Your task to perform on an android device: Open settings on Google Maps Image 0: 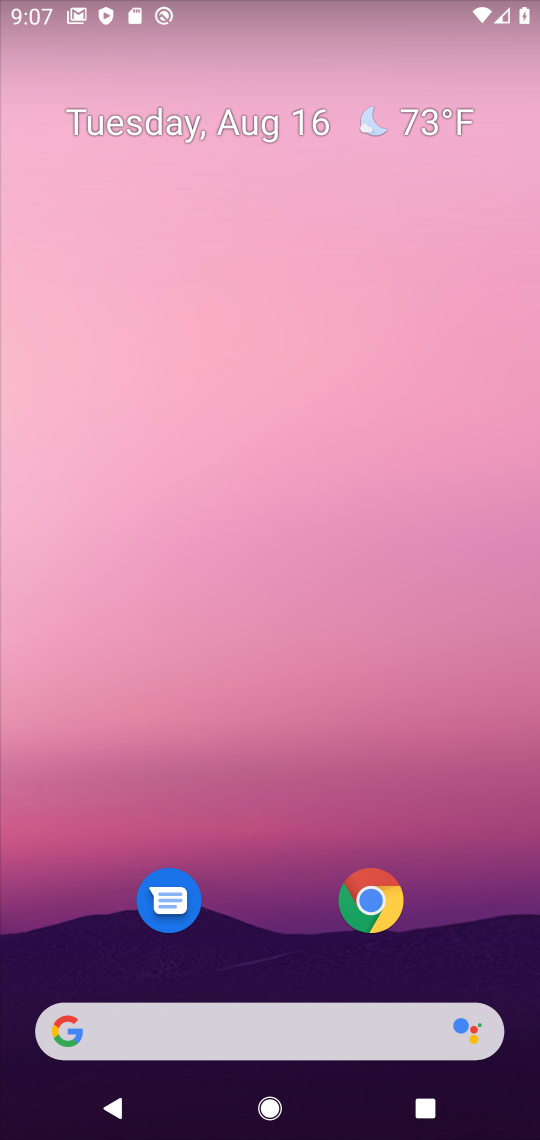
Step 0: drag from (240, 842) to (319, 423)
Your task to perform on an android device: Open settings on Google Maps Image 1: 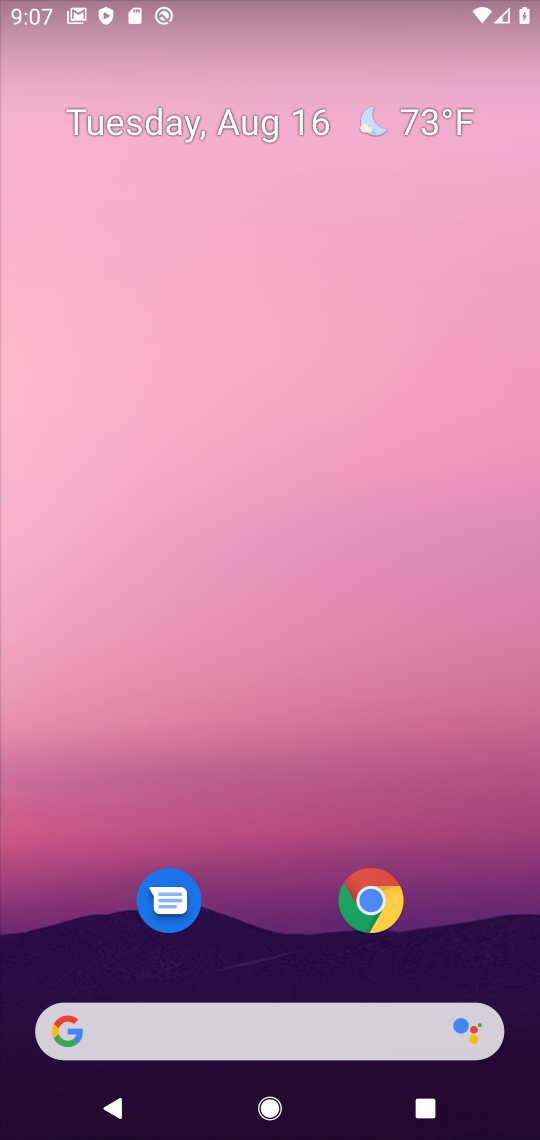
Step 1: drag from (441, 1046) to (477, 380)
Your task to perform on an android device: Open settings on Google Maps Image 2: 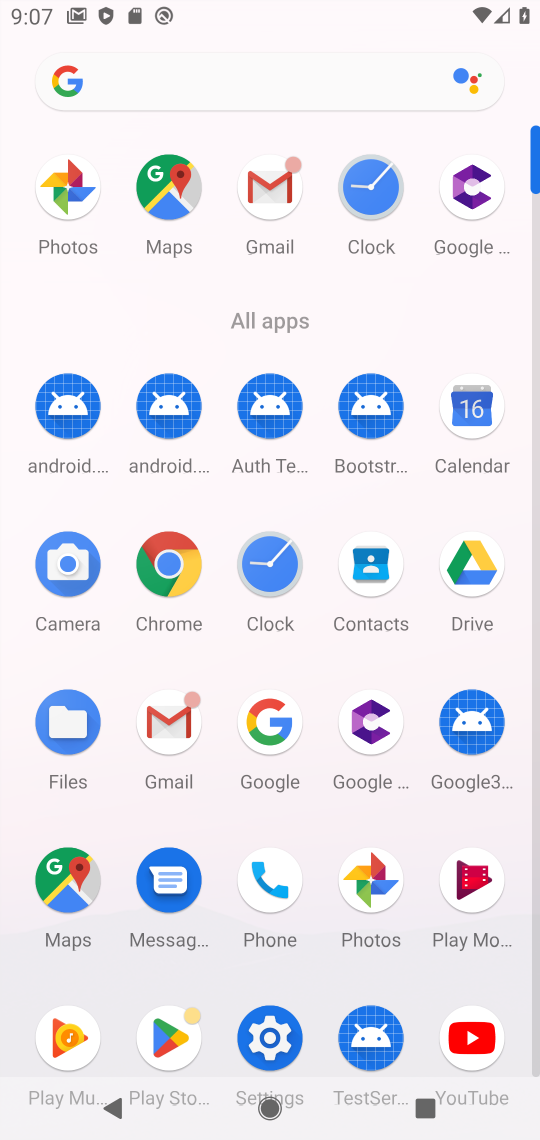
Step 2: click (53, 887)
Your task to perform on an android device: Open settings on Google Maps Image 3: 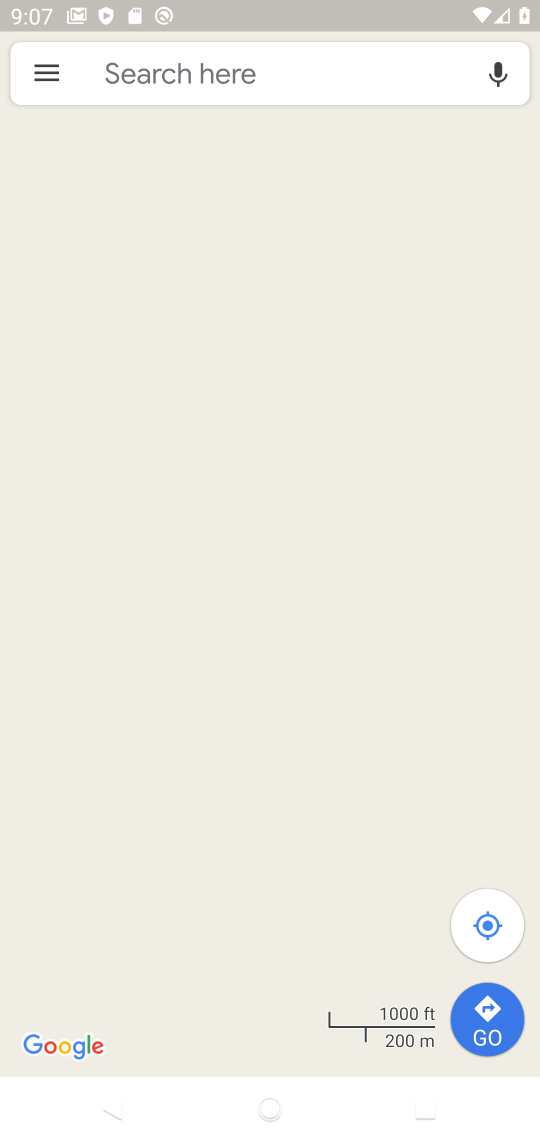
Step 3: click (57, 73)
Your task to perform on an android device: Open settings on Google Maps Image 4: 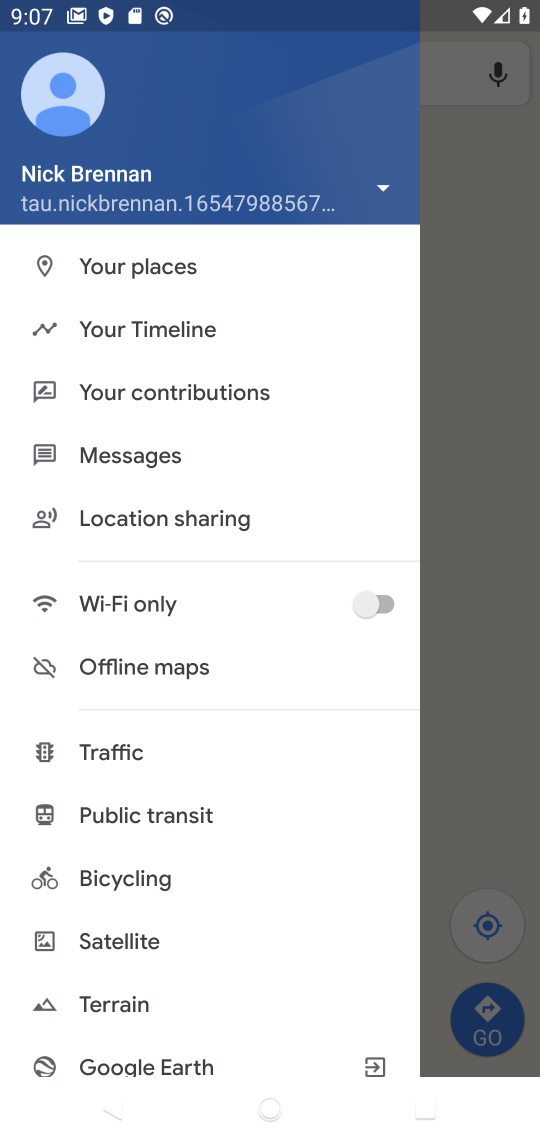
Step 4: drag from (123, 959) to (164, 453)
Your task to perform on an android device: Open settings on Google Maps Image 5: 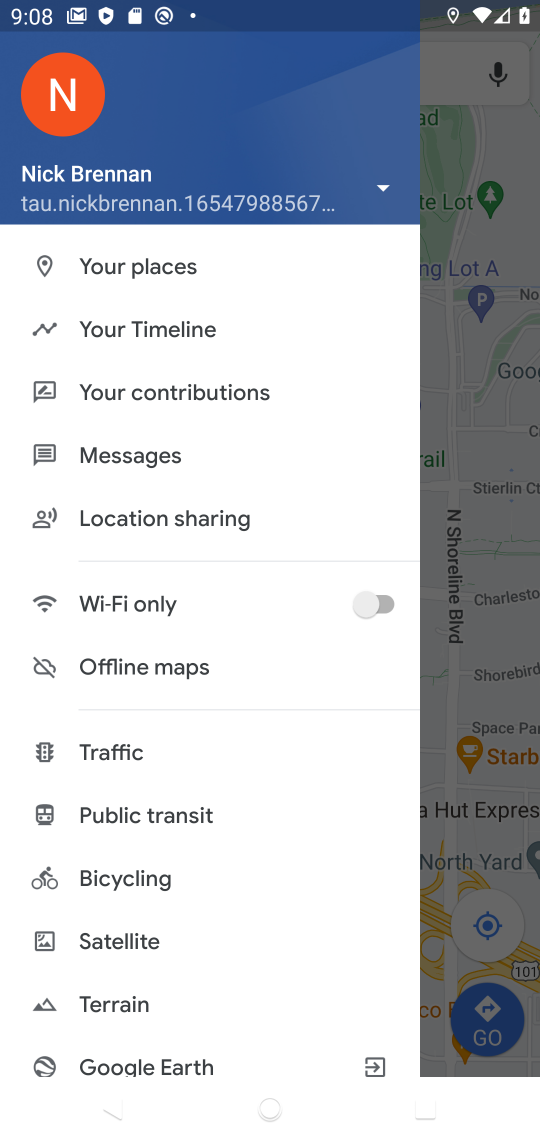
Step 5: drag from (194, 932) to (186, 551)
Your task to perform on an android device: Open settings on Google Maps Image 6: 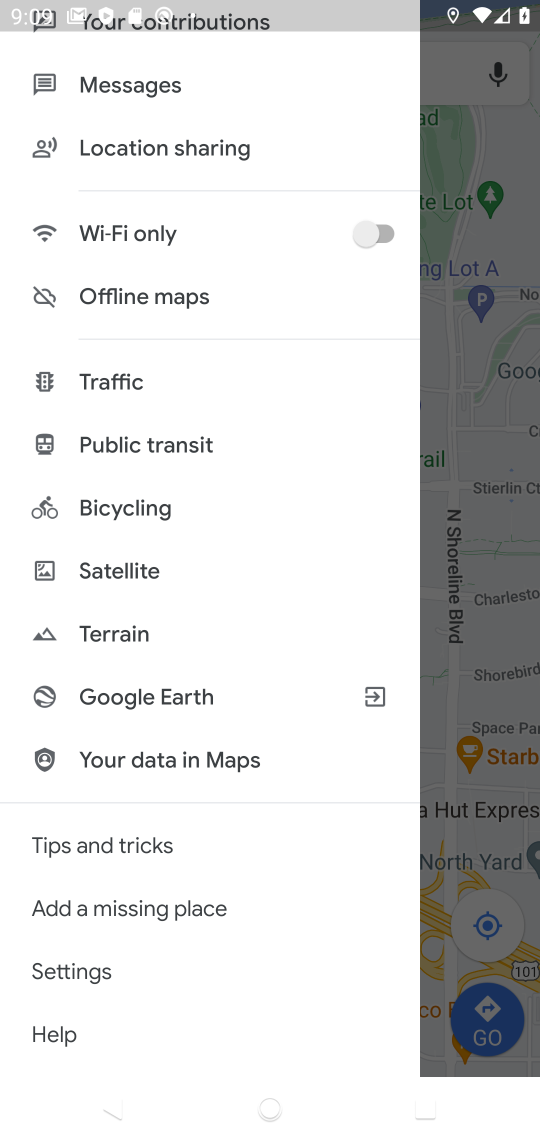
Step 6: click (39, 959)
Your task to perform on an android device: Open settings on Google Maps Image 7: 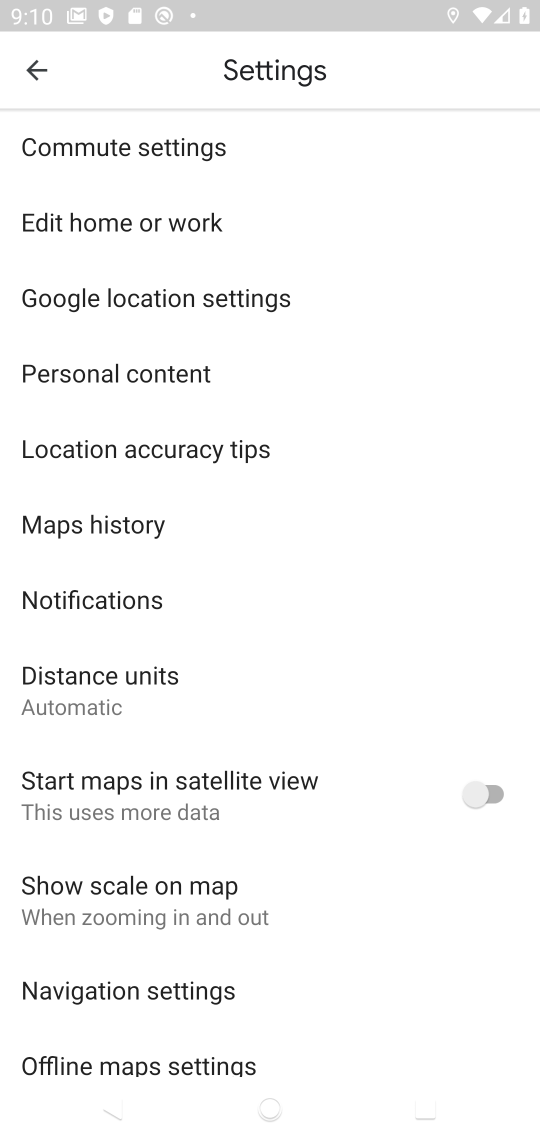
Step 7: task complete